Your task to perform on an android device: Go to CNN.com Image 0: 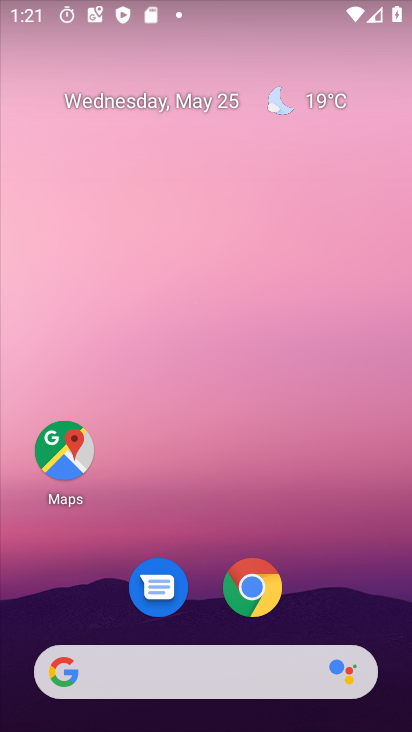
Step 0: click (242, 591)
Your task to perform on an android device: Go to CNN.com Image 1: 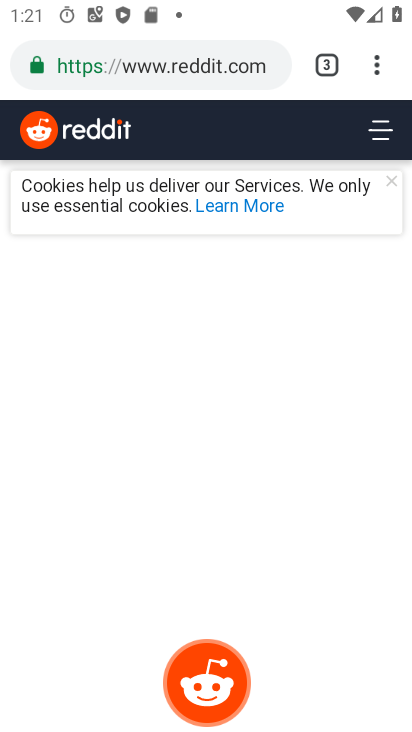
Step 1: click (379, 76)
Your task to perform on an android device: Go to CNN.com Image 2: 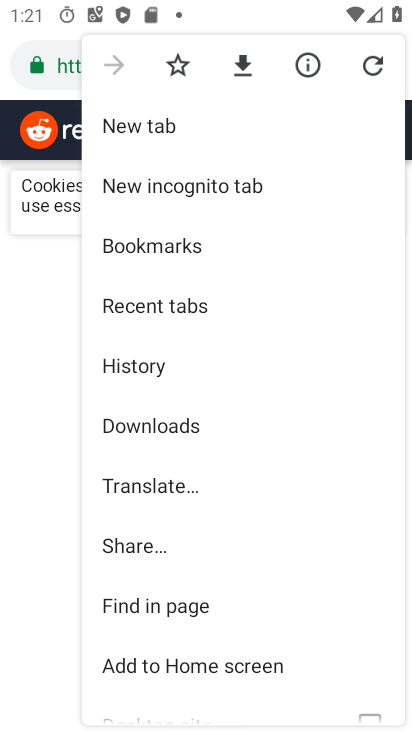
Step 2: click (157, 121)
Your task to perform on an android device: Go to CNN.com Image 3: 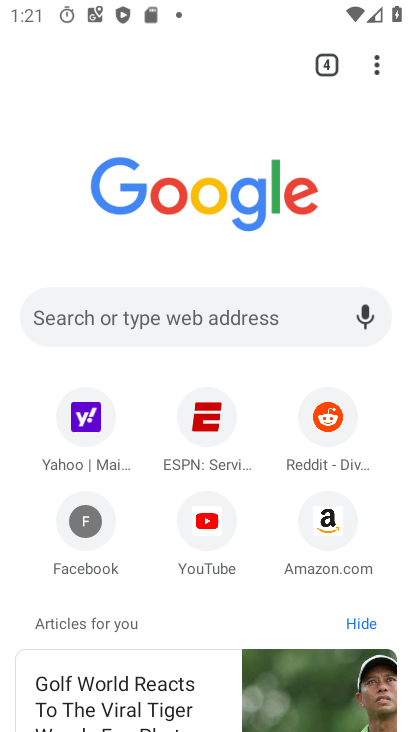
Step 3: click (188, 315)
Your task to perform on an android device: Go to CNN.com Image 4: 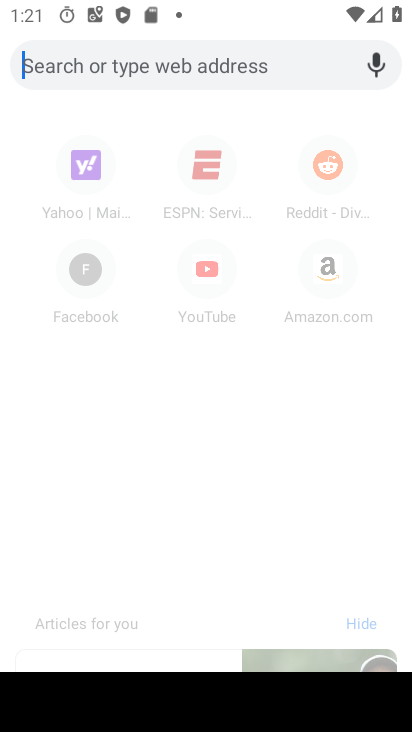
Step 4: type "CNN.com"
Your task to perform on an android device: Go to CNN.com Image 5: 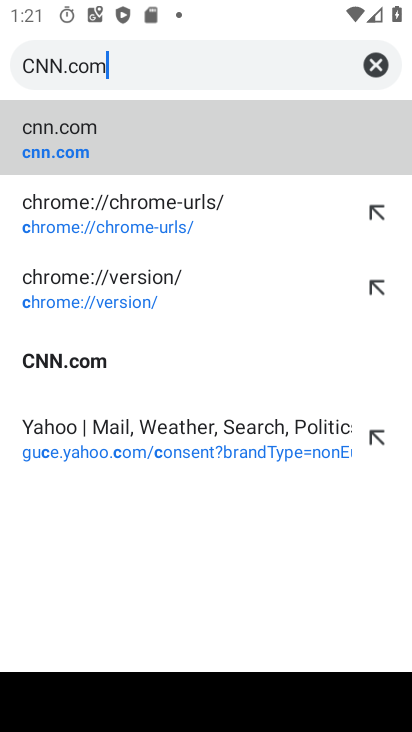
Step 5: type ""
Your task to perform on an android device: Go to CNN.com Image 6: 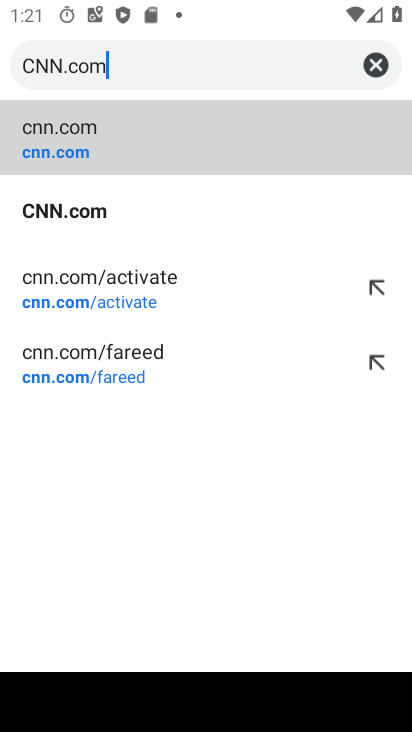
Step 6: click (73, 132)
Your task to perform on an android device: Go to CNN.com Image 7: 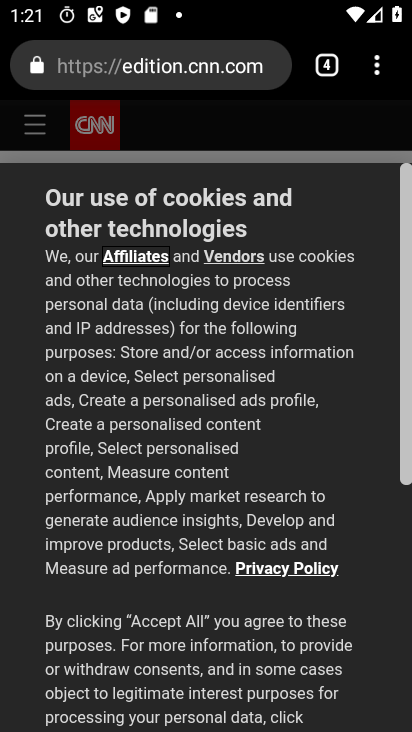
Step 7: task complete